Your task to perform on an android device: turn notification dots off Image 0: 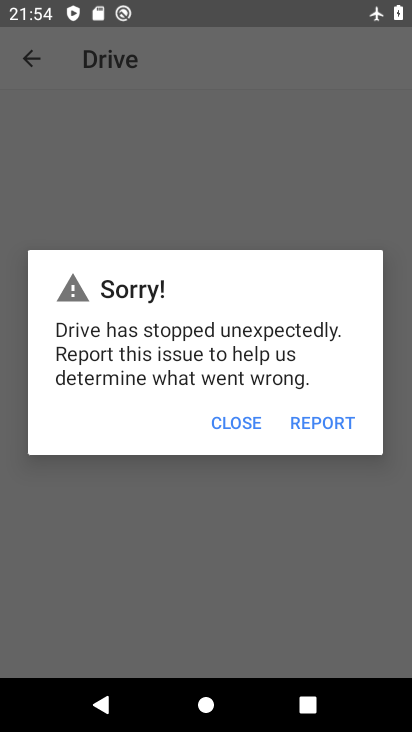
Step 0: press home button
Your task to perform on an android device: turn notification dots off Image 1: 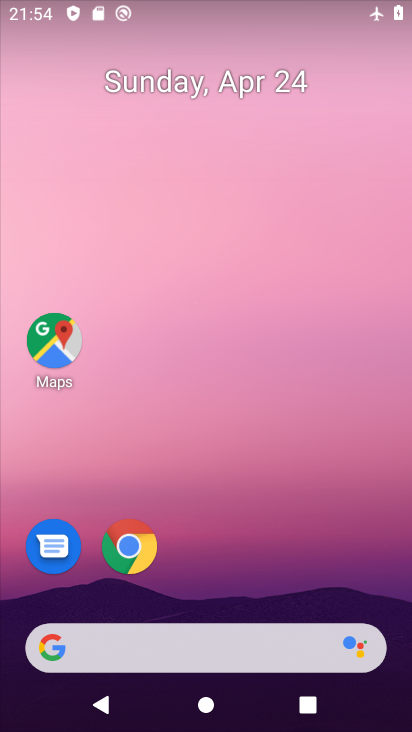
Step 1: drag from (233, 430) to (285, 235)
Your task to perform on an android device: turn notification dots off Image 2: 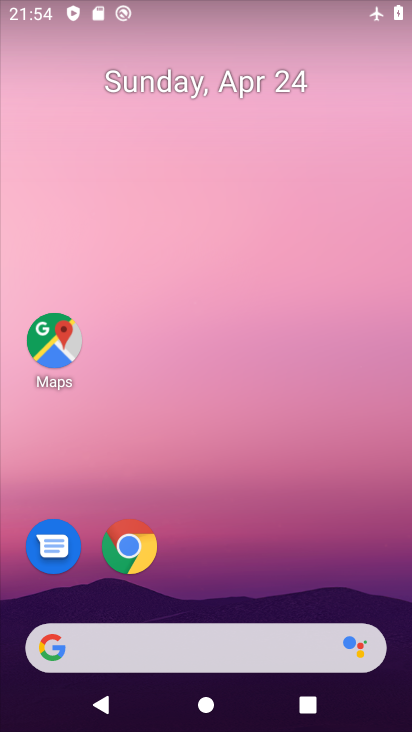
Step 2: drag from (259, 567) to (328, 172)
Your task to perform on an android device: turn notification dots off Image 3: 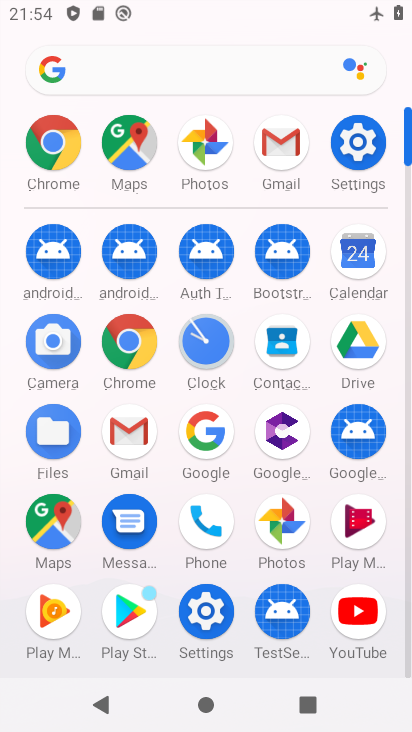
Step 3: click (355, 140)
Your task to perform on an android device: turn notification dots off Image 4: 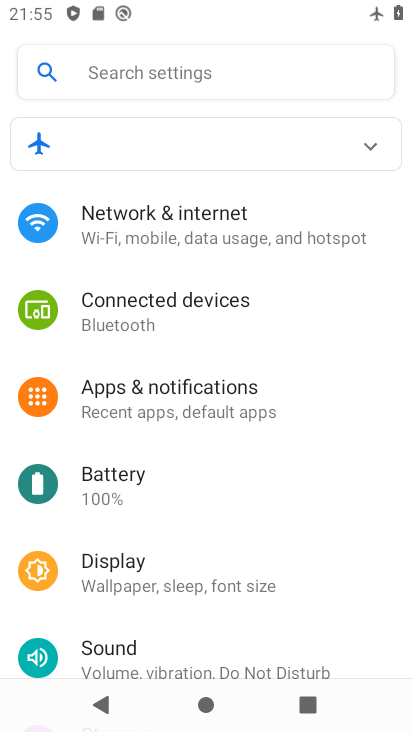
Step 4: click (199, 62)
Your task to perform on an android device: turn notification dots off Image 5: 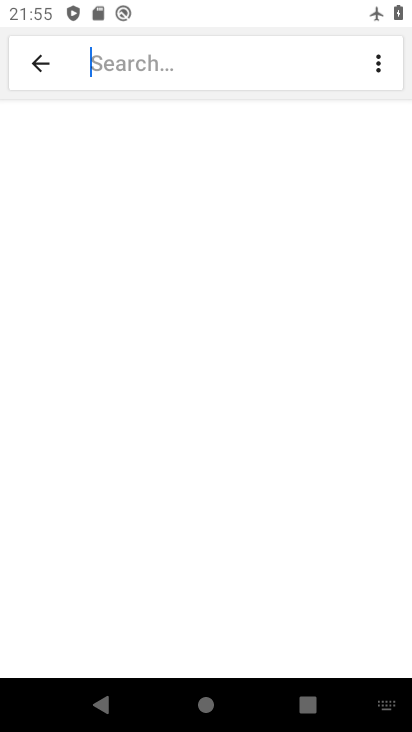
Step 5: type "notification dots "
Your task to perform on an android device: turn notification dots off Image 6: 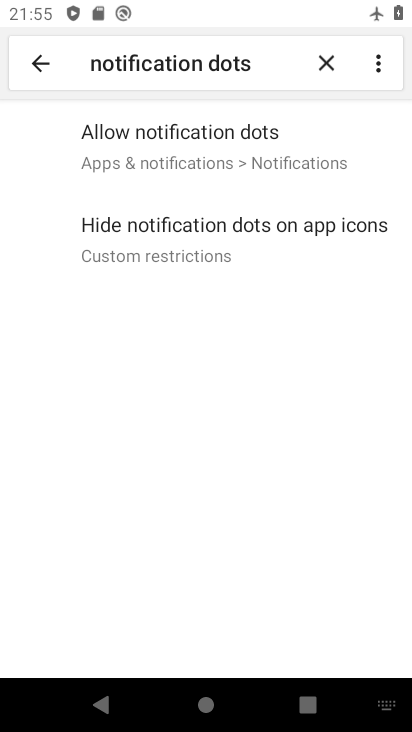
Step 6: click (204, 140)
Your task to perform on an android device: turn notification dots off Image 7: 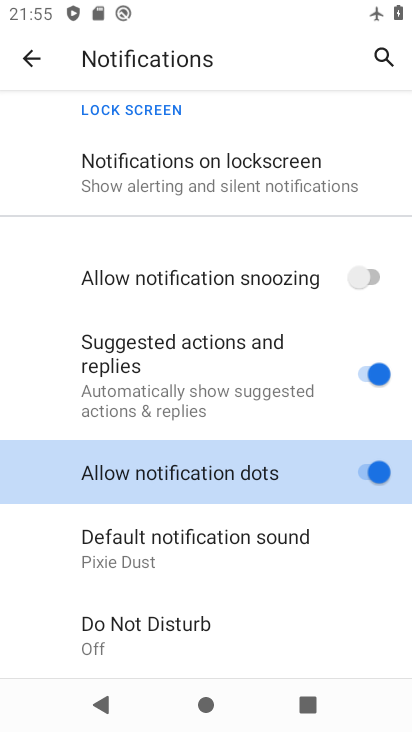
Step 7: click (368, 470)
Your task to perform on an android device: turn notification dots off Image 8: 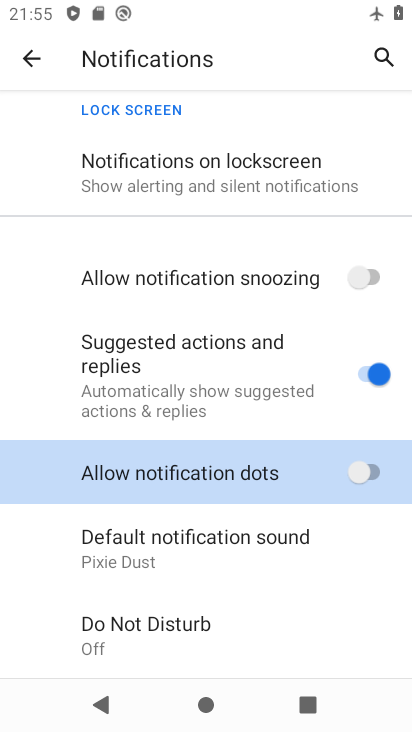
Step 8: task complete